Your task to perform on an android device: add a label to a message in the gmail app Image 0: 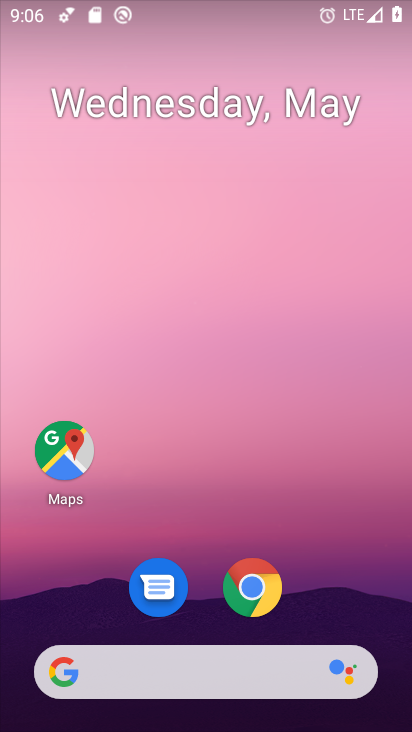
Step 0: drag from (218, 621) to (239, 143)
Your task to perform on an android device: add a label to a message in the gmail app Image 1: 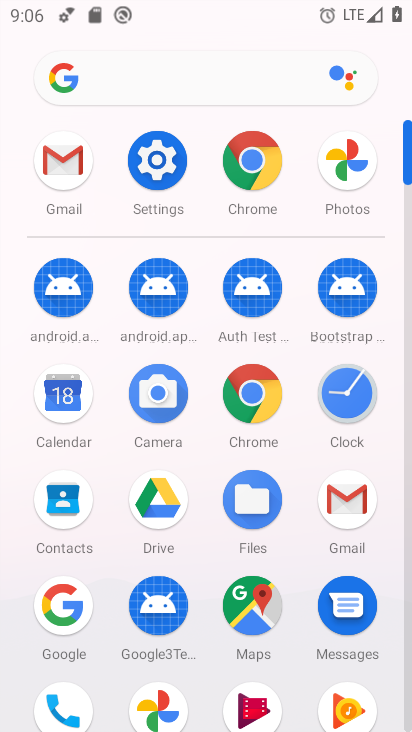
Step 1: click (343, 500)
Your task to perform on an android device: add a label to a message in the gmail app Image 2: 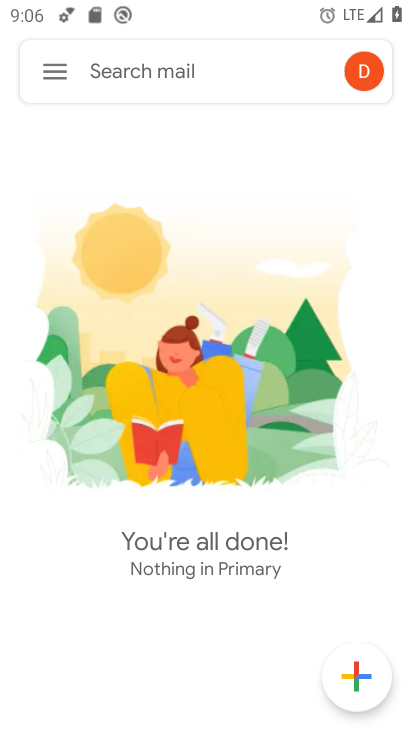
Step 2: click (41, 71)
Your task to perform on an android device: add a label to a message in the gmail app Image 3: 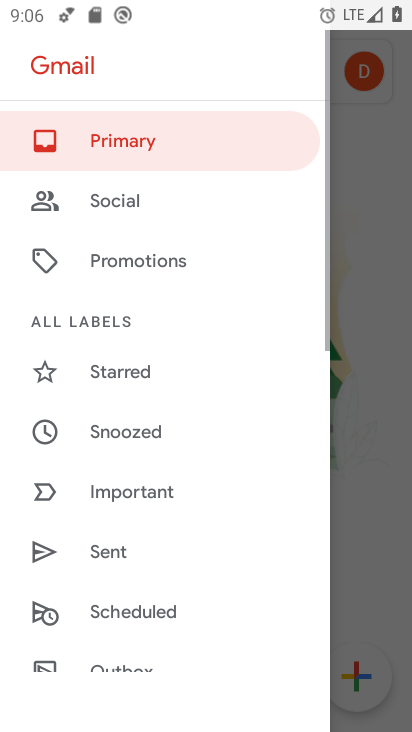
Step 3: drag from (124, 577) to (174, 253)
Your task to perform on an android device: add a label to a message in the gmail app Image 4: 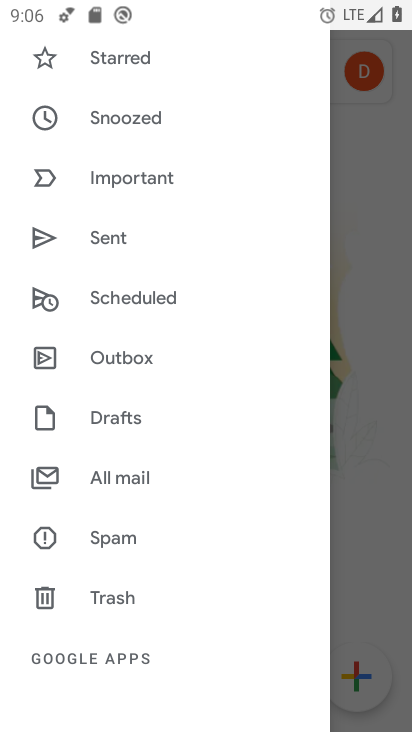
Step 4: click (128, 478)
Your task to perform on an android device: add a label to a message in the gmail app Image 5: 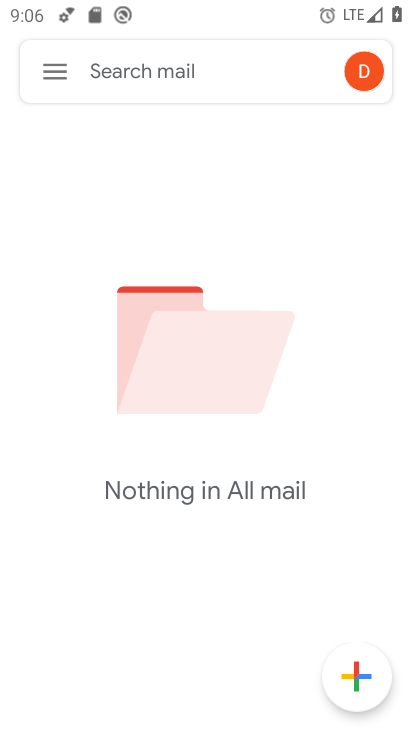
Step 5: task complete